Your task to perform on an android device: Open Google Image 0: 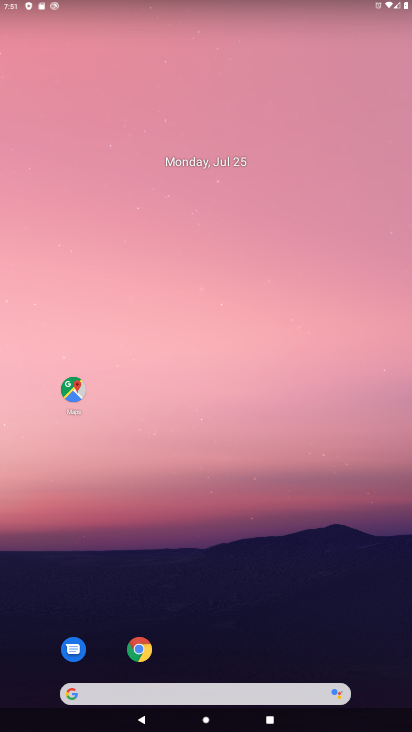
Step 0: click (139, 655)
Your task to perform on an android device: Open Google Image 1: 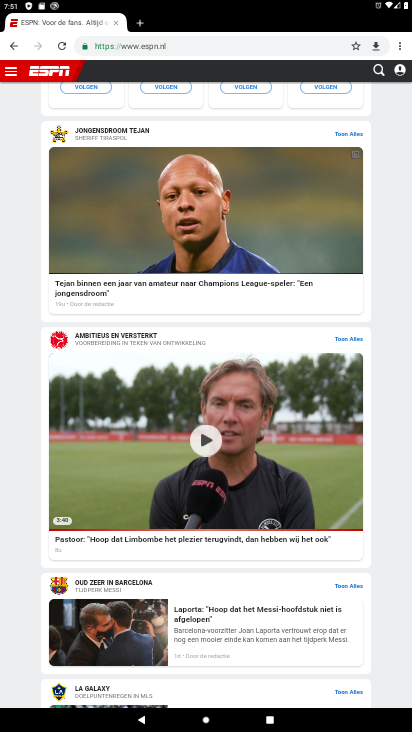
Step 1: task complete